Your task to perform on an android device: Open Chrome and go to the settings page Image 0: 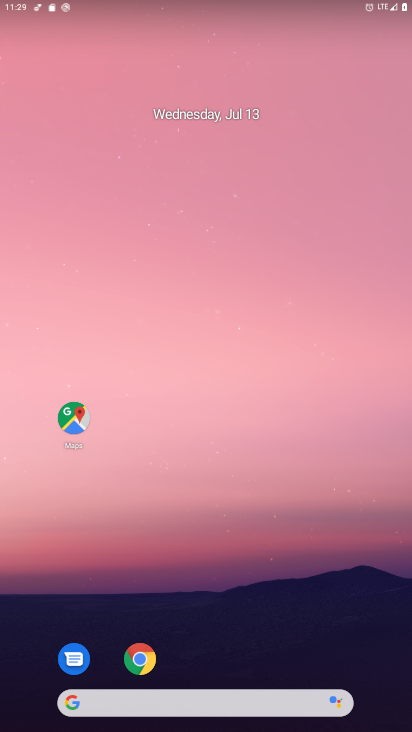
Step 0: press home button
Your task to perform on an android device: Open Chrome and go to the settings page Image 1: 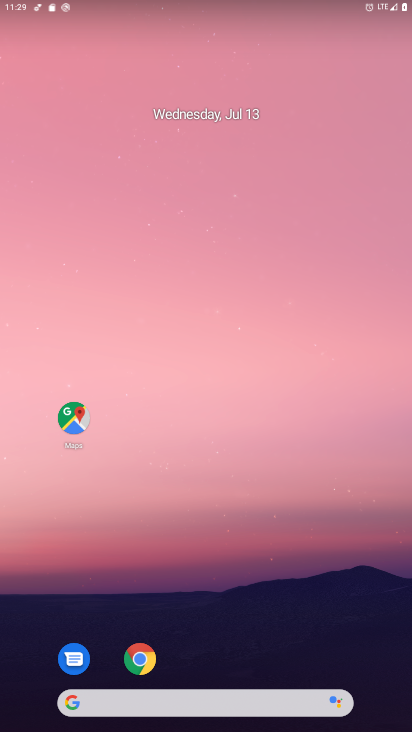
Step 1: click (138, 654)
Your task to perform on an android device: Open Chrome and go to the settings page Image 2: 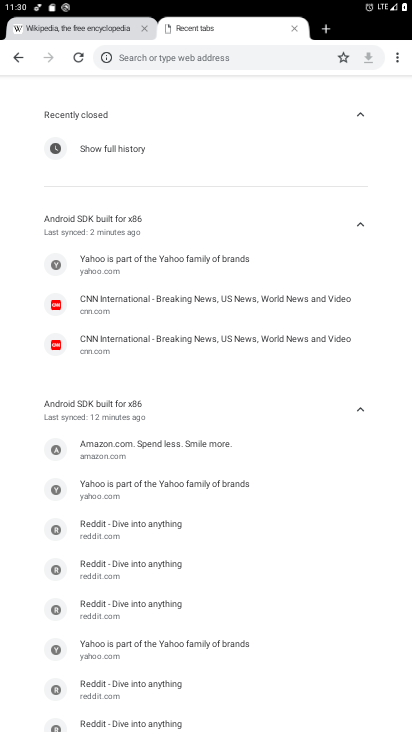
Step 2: click (398, 55)
Your task to perform on an android device: Open Chrome and go to the settings page Image 3: 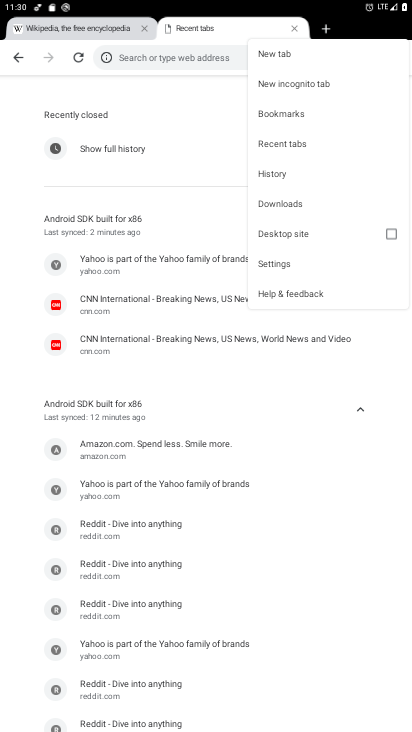
Step 3: click (293, 264)
Your task to perform on an android device: Open Chrome and go to the settings page Image 4: 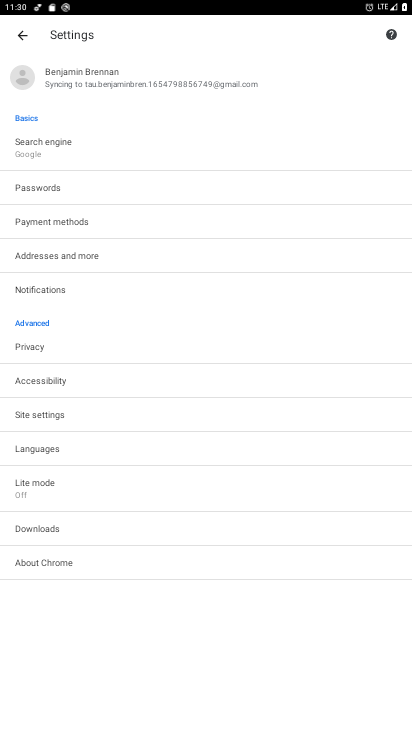
Step 4: task complete